Your task to perform on an android device: choose inbox layout in the gmail app Image 0: 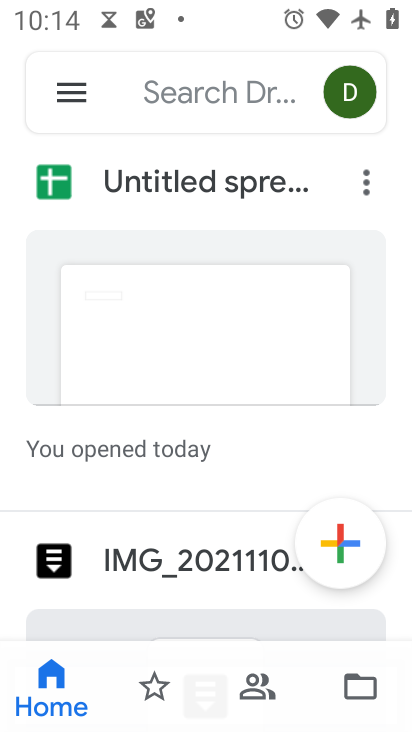
Step 0: press home button
Your task to perform on an android device: choose inbox layout in the gmail app Image 1: 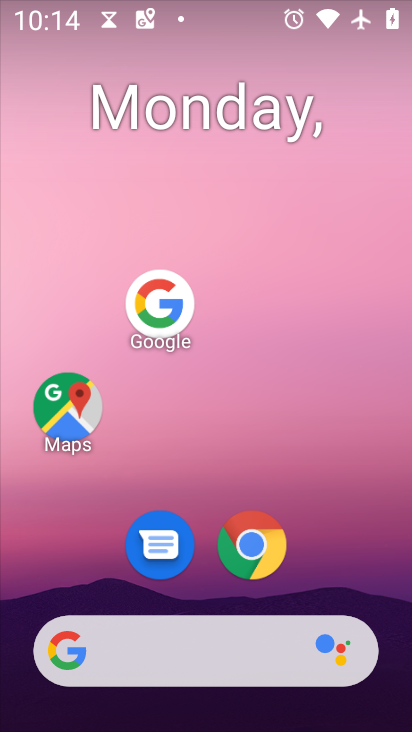
Step 1: drag from (130, 655) to (316, 114)
Your task to perform on an android device: choose inbox layout in the gmail app Image 2: 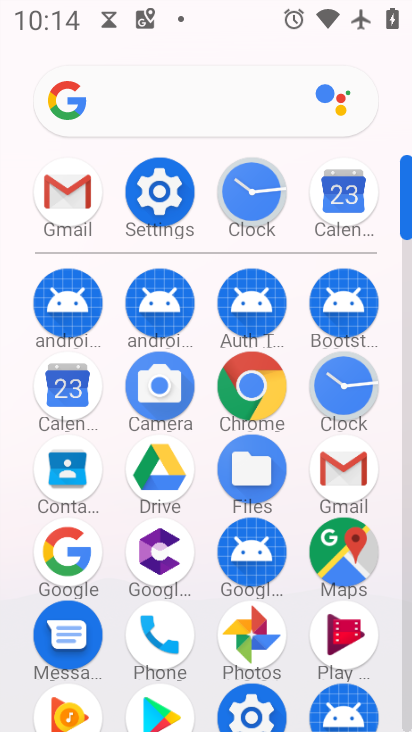
Step 2: click (64, 203)
Your task to perform on an android device: choose inbox layout in the gmail app Image 3: 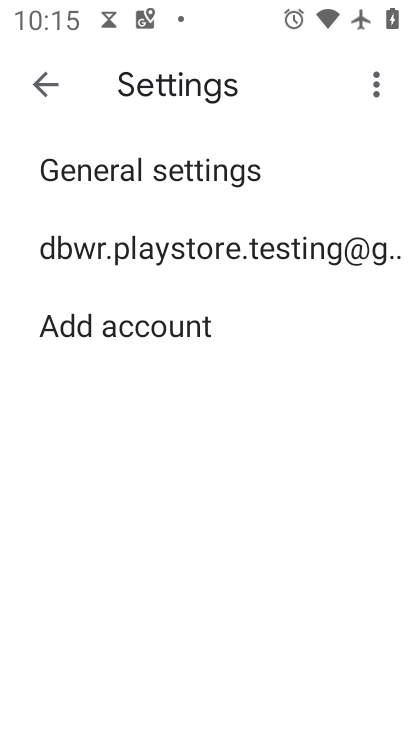
Step 3: click (206, 251)
Your task to perform on an android device: choose inbox layout in the gmail app Image 4: 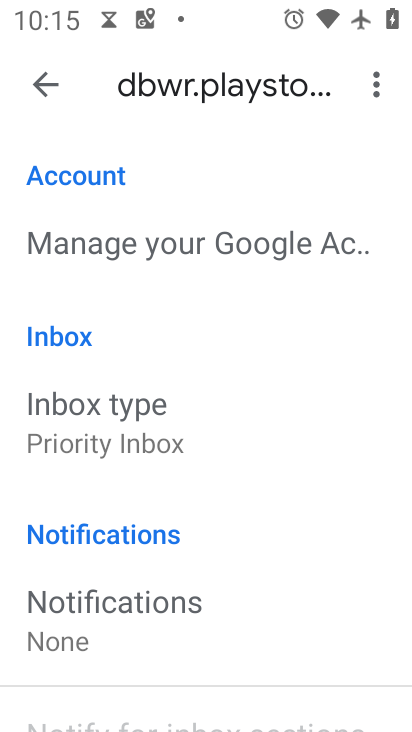
Step 4: click (115, 421)
Your task to perform on an android device: choose inbox layout in the gmail app Image 5: 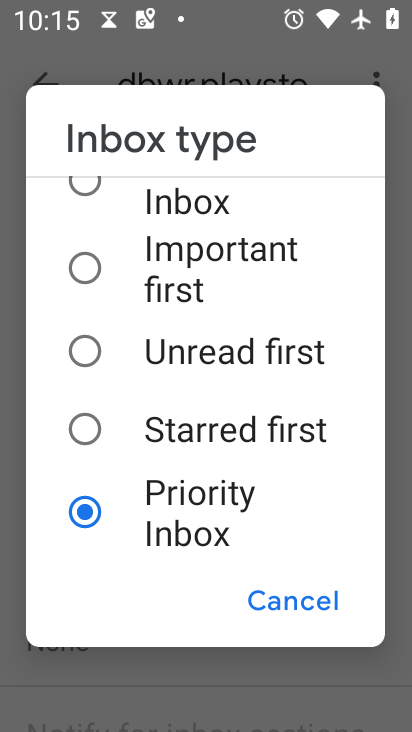
Step 5: drag from (241, 248) to (211, 546)
Your task to perform on an android device: choose inbox layout in the gmail app Image 6: 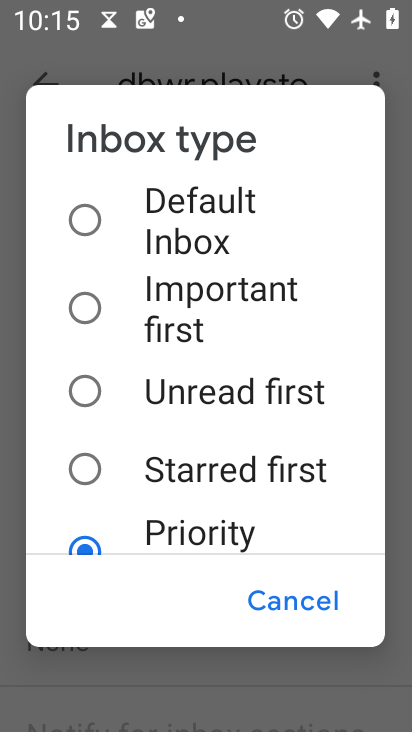
Step 6: click (91, 215)
Your task to perform on an android device: choose inbox layout in the gmail app Image 7: 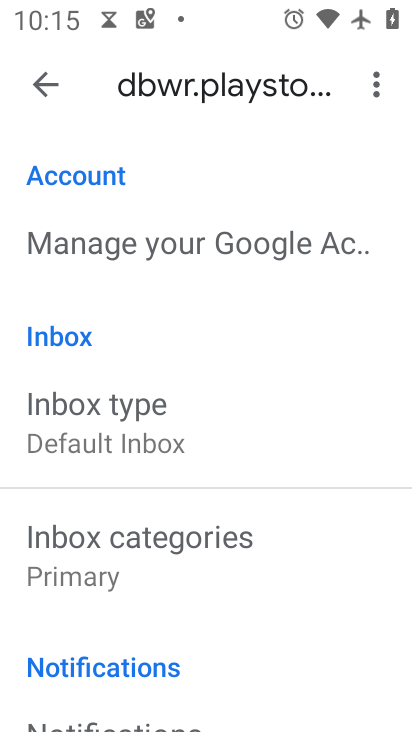
Step 7: task complete